Your task to perform on an android device: turn on javascript in the chrome app Image 0: 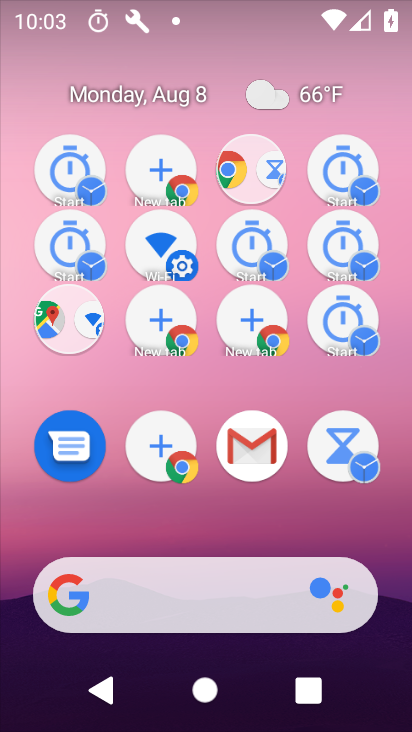
Step 0: drag from (216, 563) to (148, 141)
Your task to perform on an android device: turn on javascript in the chrome app Image 1: 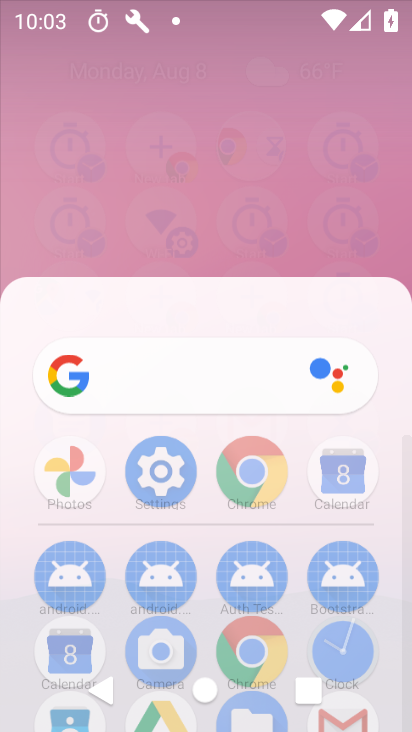
Step 1: drag from (127, 282) to (96, 146)
Your task to perform on an android device: turn on javascript in the chrome app Image 2: 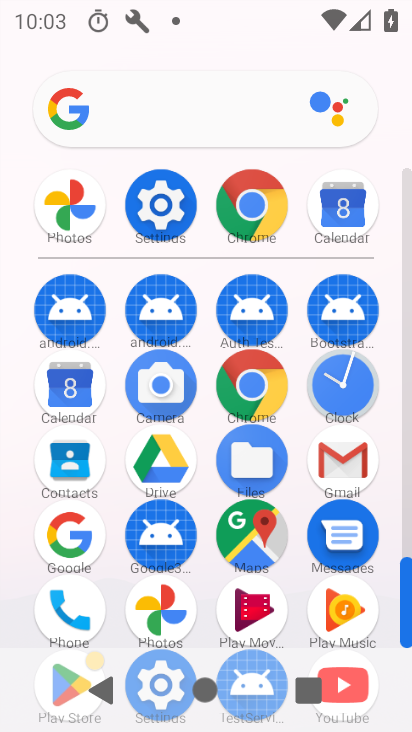
Step 2: drag from (200, 506) to (197, 202)
Your task to perform on an android device: turn on javascript in the chrome app Image 3: 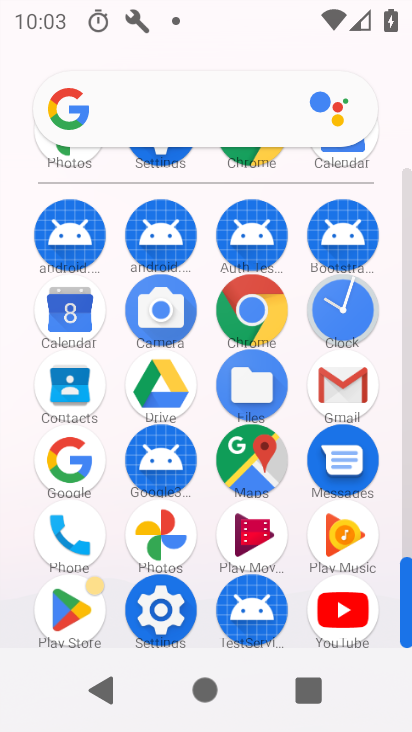
Step 3: click (241, 207)
Your task to perform on an android device: turn on javascript in the chrome app Image 4: 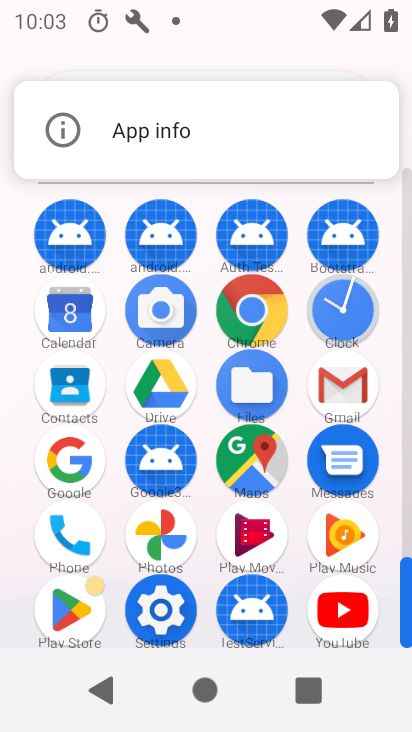
Step 4: click (263, 301)
Your task to perform on an android device: turn on javascript in the chrome app Image 5: 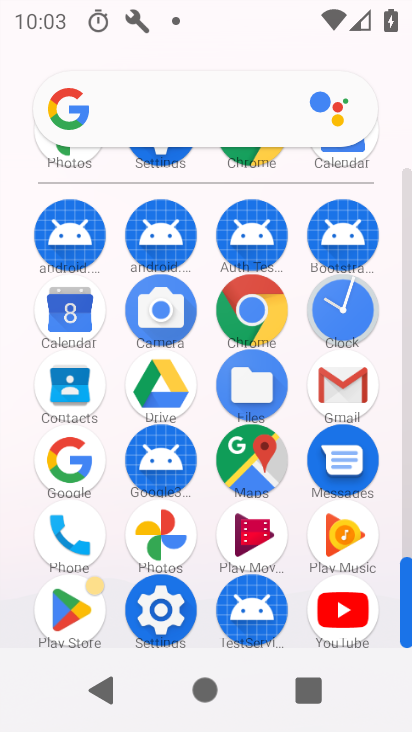
Step 5: click (249, 310)
Your task to perform on an android device: turn on javascript in the chrome app Image 6: 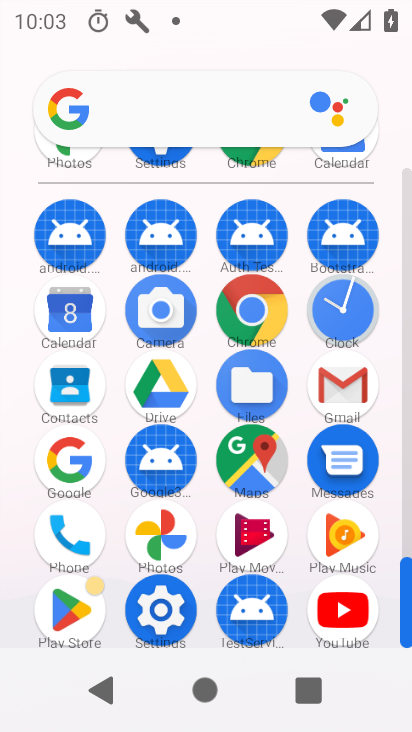
Step 6: click (249, 310)
Your task to perform on an android device: turn on javascript in the chrome app Image 7: 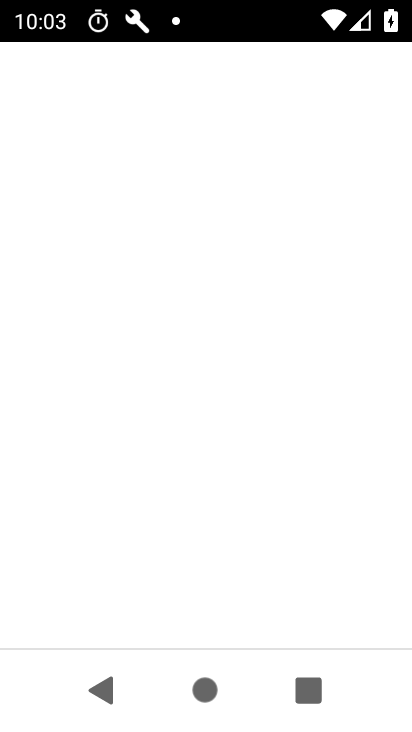
Step 7: click (249, 310)
Your task to perform on an android device: turn on javascript in the chrome app Image 8: 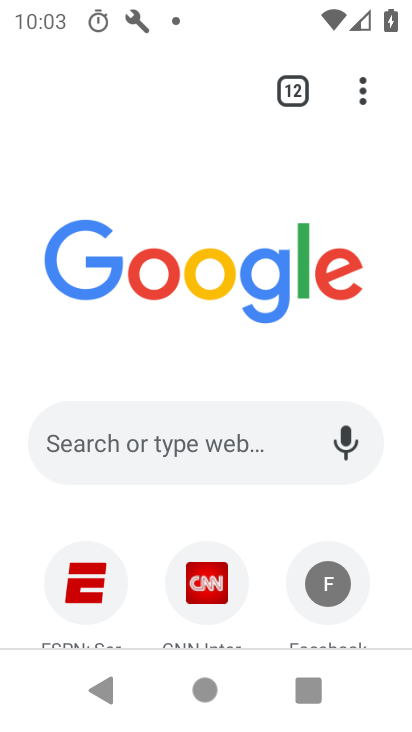
Step 8: drag from (367, 100) to (71, 471)
Your task to perform on an android device: turn on javascript in the chrome app Image 9: 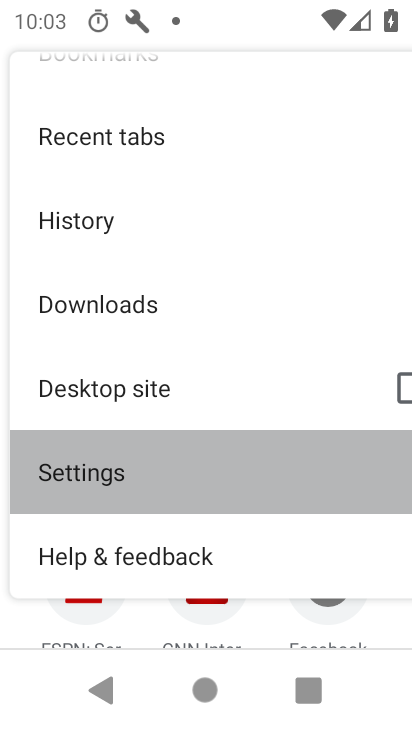
Step 9: click (74, 474)
Your task to perform on an android device: turn on javascript in the chrome app Image 10: 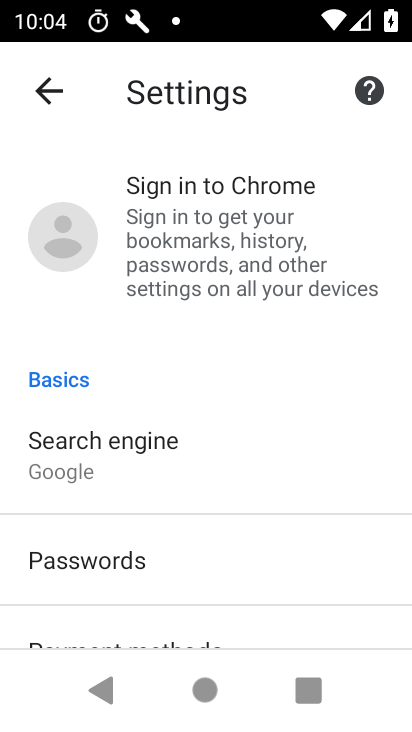
Step 10: drag from (176, 606) to (170, 239)
Your task to perform on an android device: turn on javascript in the chrome app Image 11: 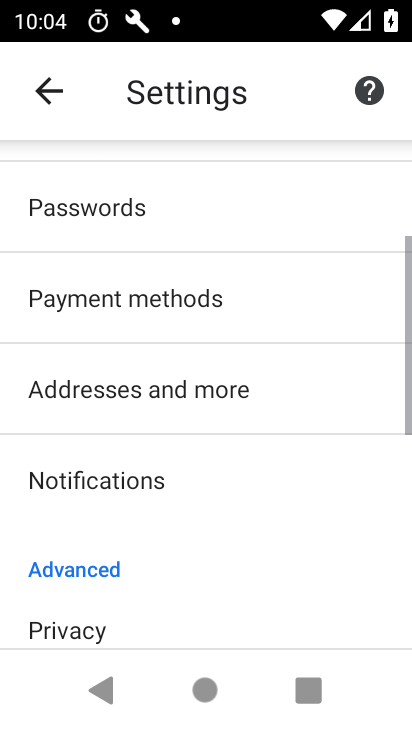
Step 11: drag from (160, 619) to (134, 244)
Your task to perform on an android device: turn on javascript in the chrome app Image 12: 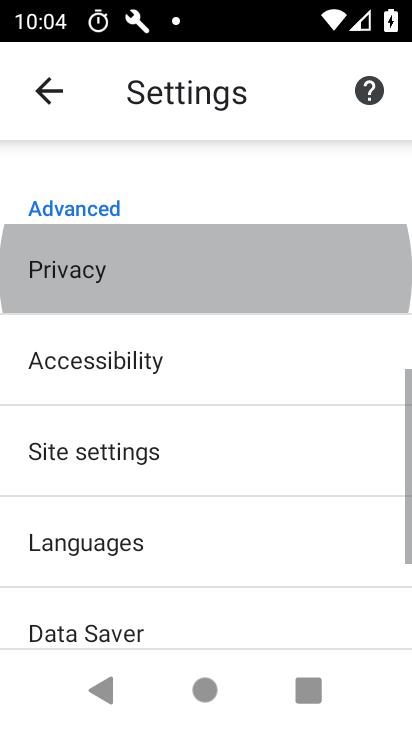
Step 12: drag from (195, 405) to (201, 242)
Your task to perform on an android device: turn on javascript in the chrome app Image 13: 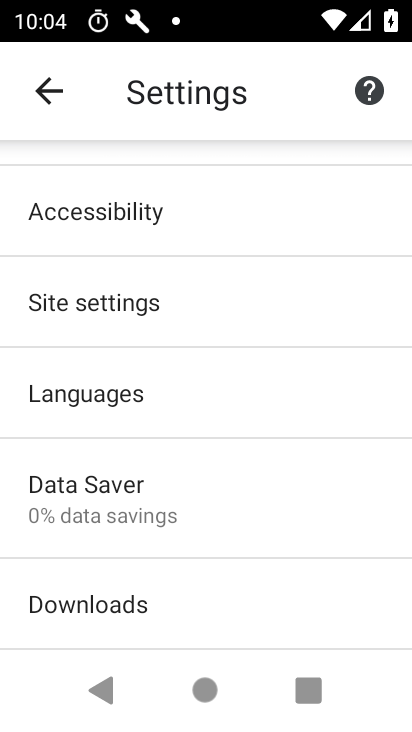
Step 13: click (78, 291)
Your task to perform on an android device: turn on javascript in the chrome app Image 14: 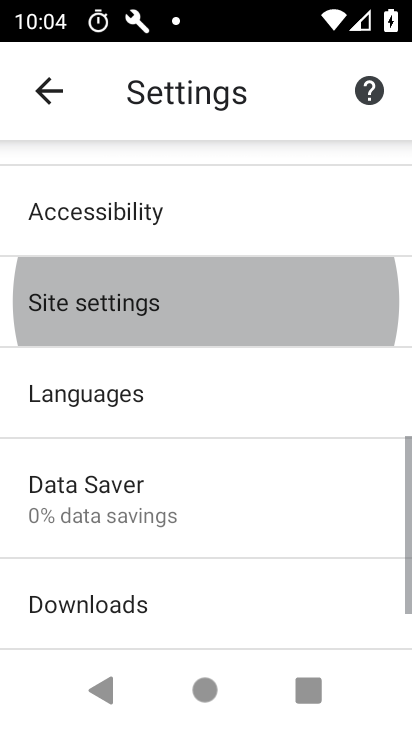
Step 14: click (79, 289)
Your task to perform on an android device: turn on javascript in the chrome app Image 15: 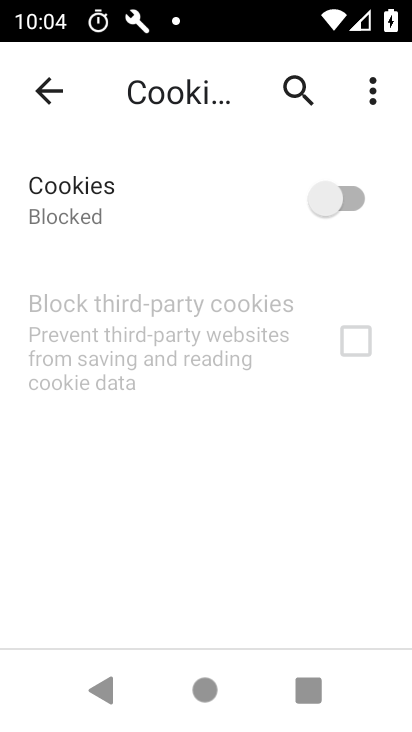
Step 15: click (37, 62)
Your task to perform on an android device: turn on javascript in the chrome app Image 16: 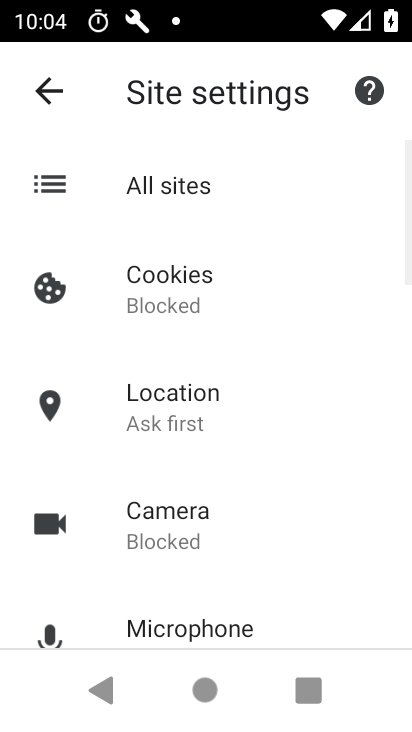
Step 16: drag from (205, 519) to (228, 174)
Your task to perform on an android device: turn on javascript in the chrome app Image 17: 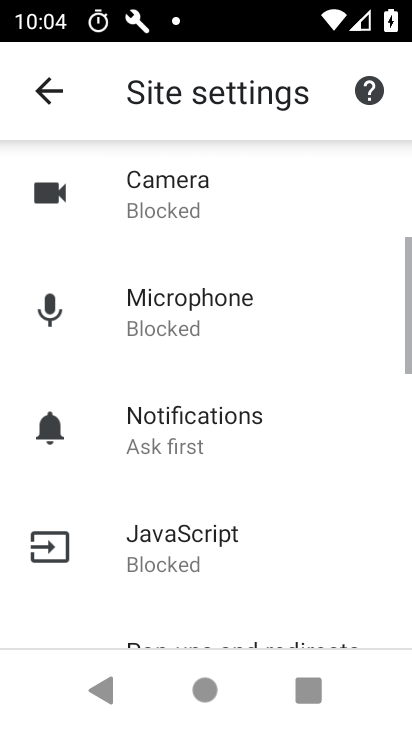
Step 17: drag from (284, 466) to (284, 144)
Your task to perform on an android device: turn on javascript in the chrome app Image 18: 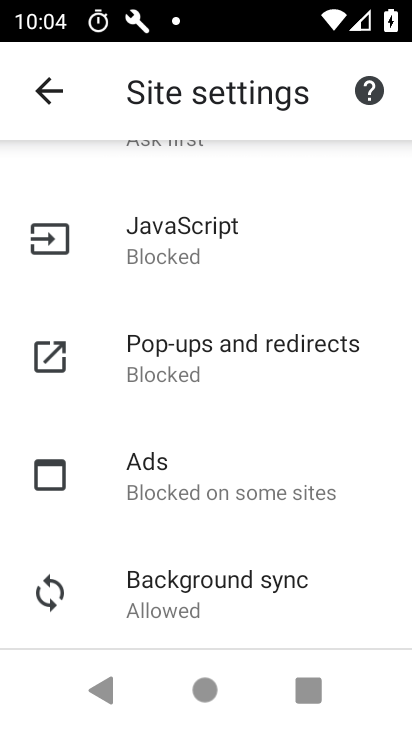
Step 18: click (174, 252)
Your task to perform on an android device: turn on javascript in the chrome app Image 19: 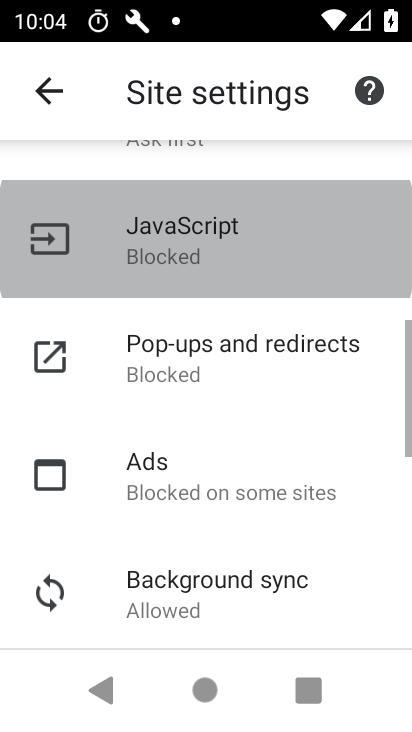
Step 19: click (174, 252)
Your task to perform on an android device: turn on javascript in the chrome app Image 20: 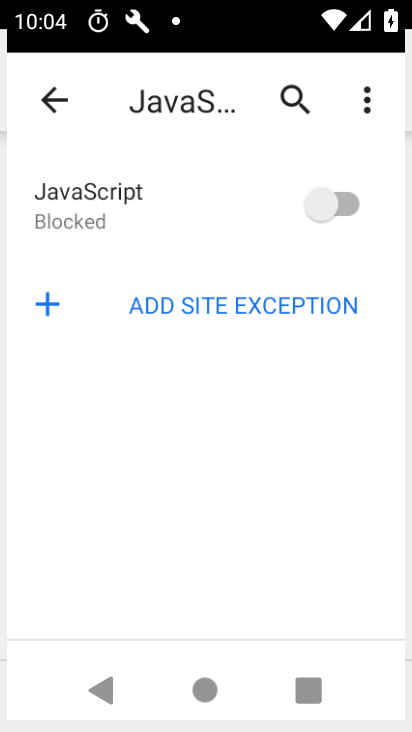
Step 20: click (174, 252)
Your task to perform on an android device: turn on javascript in the chrome app Image 21: 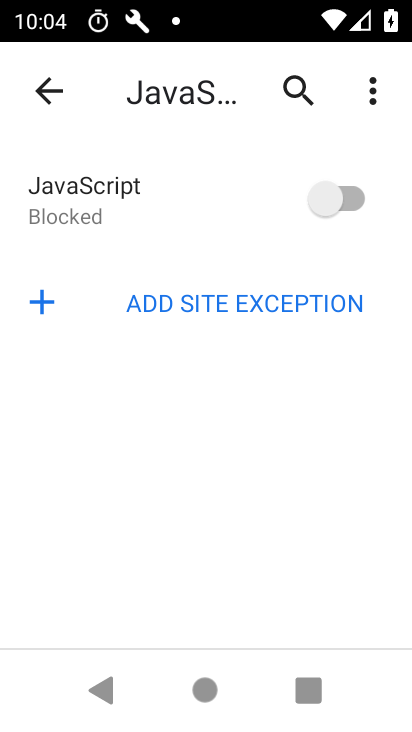
Step 21: click (333, 206)
Your task to perform on an android device: turn on javascript in the chrome app Image 22: 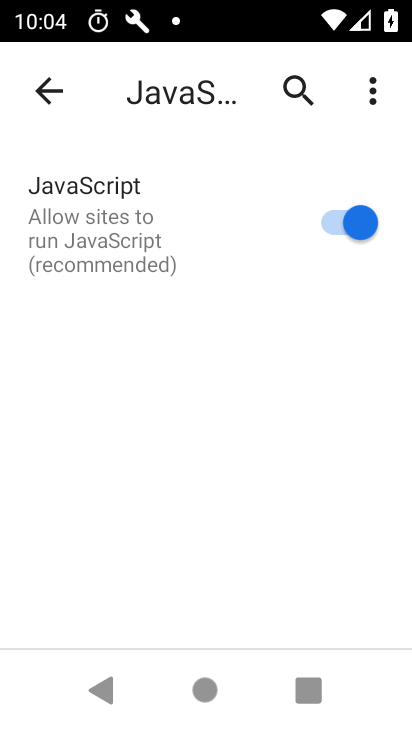
Step 22: task complete